Your task to perform on an android device: What's the weather today? Image 0: 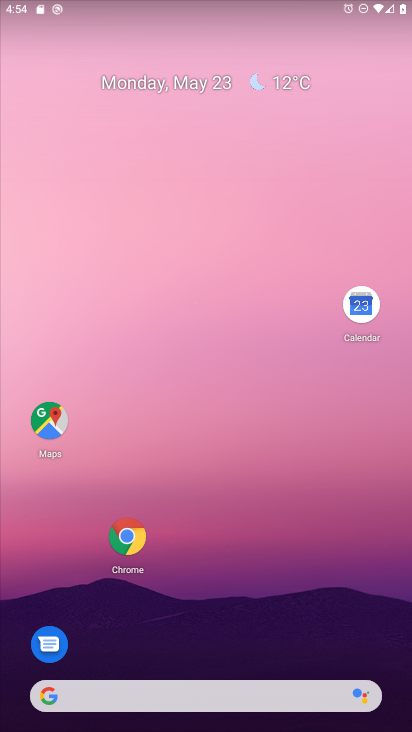
Step 0: click (132, 537)
Your task to perform on an android device: What's the weather today? Image 1: 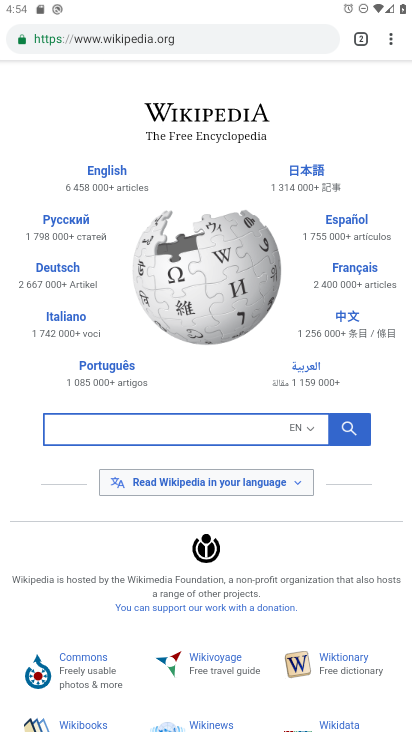
Step 1: click (159, 35)
Your task to perform on an android device: What's the weather today? Image 2: 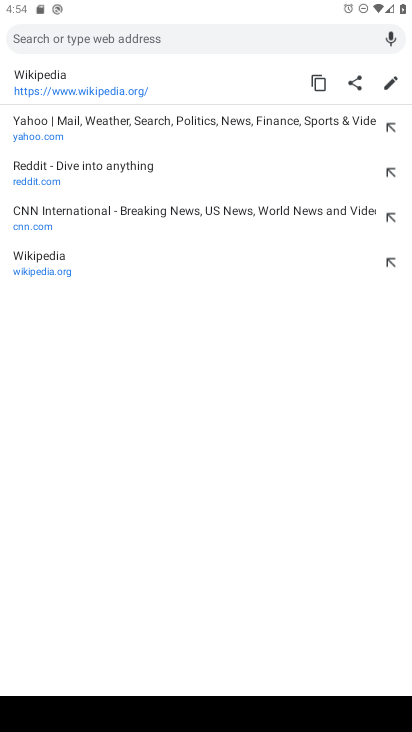
Step 2: press home button
Your task to perform on an android device: What's the weather today? Image 3: 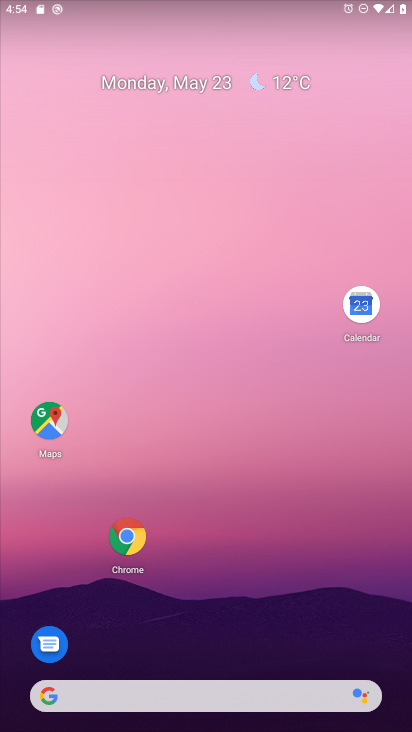
Step 3: click (294, 86)
Your task to perform on an android device: What's the weather today? Image 4: 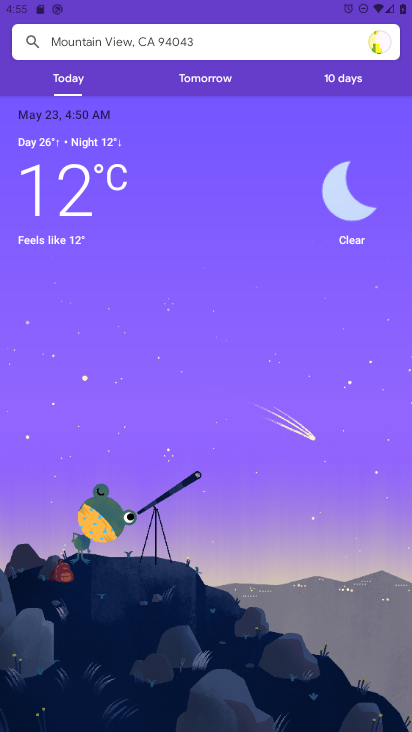
Step 4: task complete